Your task to perform on an android device: Open the calendar app, open the side menu, and click the "Day" option Image 0: 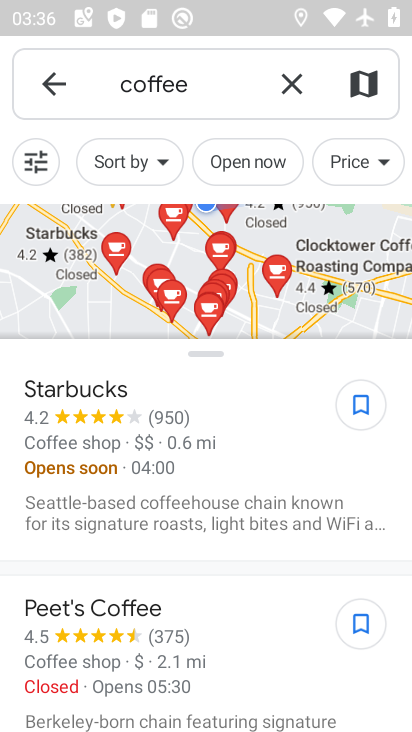
Step 0: press home button
Your task to perform on an android device: Open the calendar app, open the side menu, and click the "Day" option Image 1: 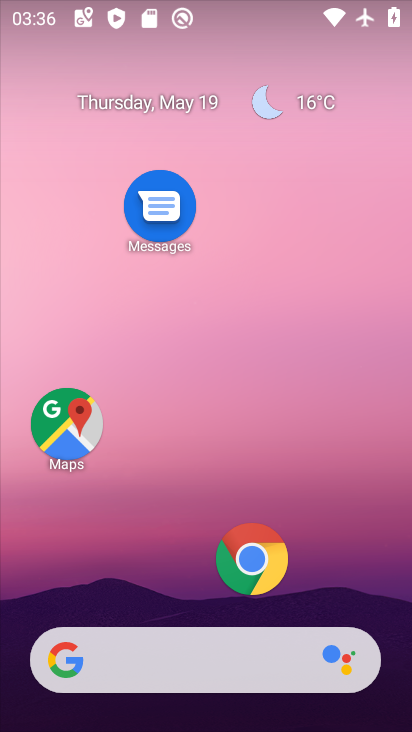
Step 1: drag from (186, 590) to (183, 278)
Your task to perform on an android device: Open the calendar app, open the side menu, and click the "Day" option Image 2: 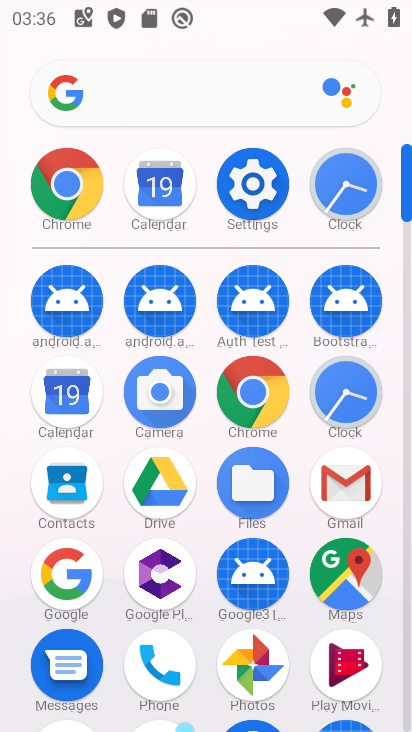
Step 2: click (163, 203)
Your task to perform on an android device: Open the calendar app, open the side menu, and click the "Day" option Image 3: 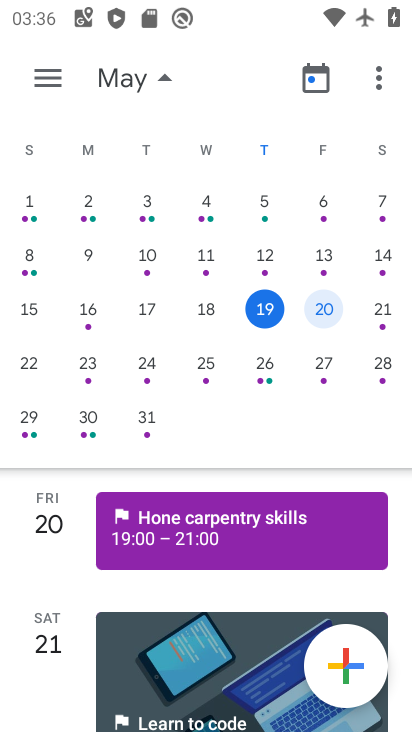
Step 3: click (41, 79)
Your task to perform on an android device: Open the calendar app, open the side menu, and click the "Day" option Image 4: 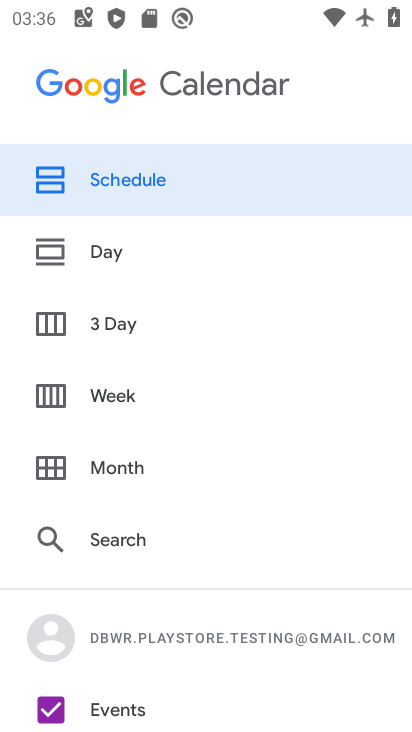
Step 4: click (133, 247)
Your task to perform on an android device: Open the calendar app, open the side menu, and click the "Day" option Image 5: 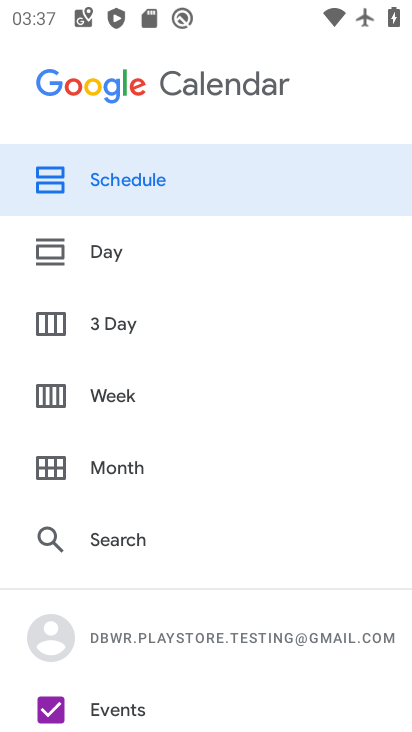
Step 5: click (124, 260)
Your task to perform on an android device: Open the calendar app, open the side menu, and click the "Day" option Image 6: 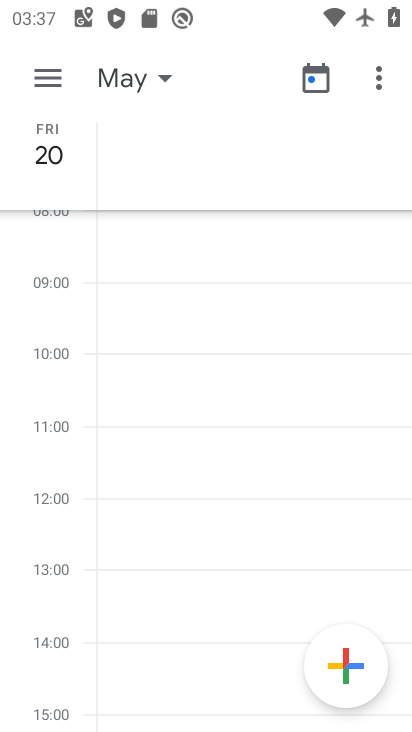
Step 6: task complete